Your task to perform on an android device: Open Android settings Image 0: 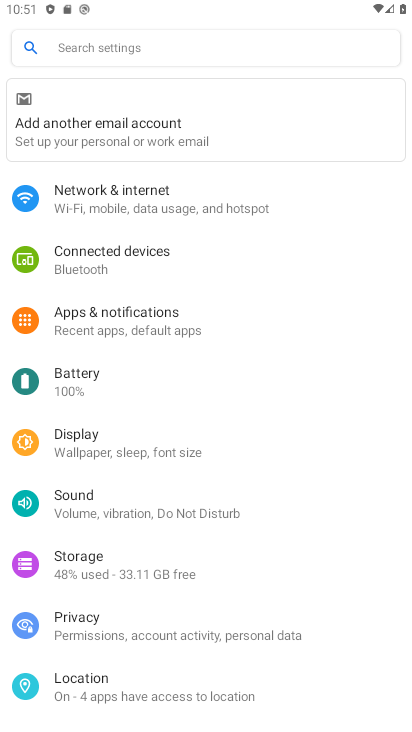
Step 0: task complete